Your task to perform on an android device: make emails show in primary in the gmail app Image 0: 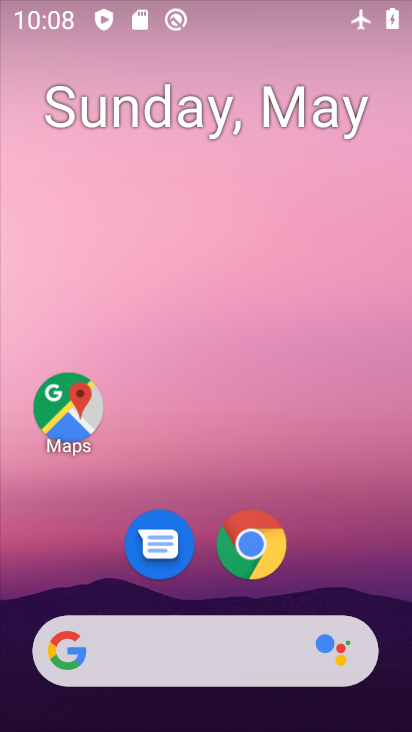
Step 0: drag from (315, 540) to (292, 267)
Your task to perform on an android device: make emails show in primary in the gmail app Image 1: 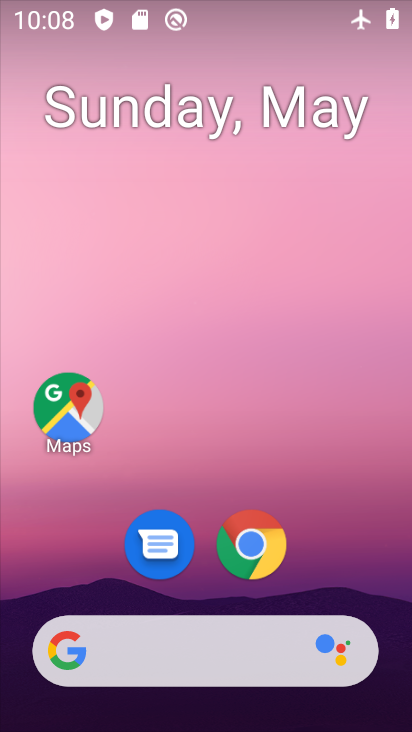
Step 1: click (277, 206)
Your task to perform on an android device: make emails show in primary in the gmail app Image 2: 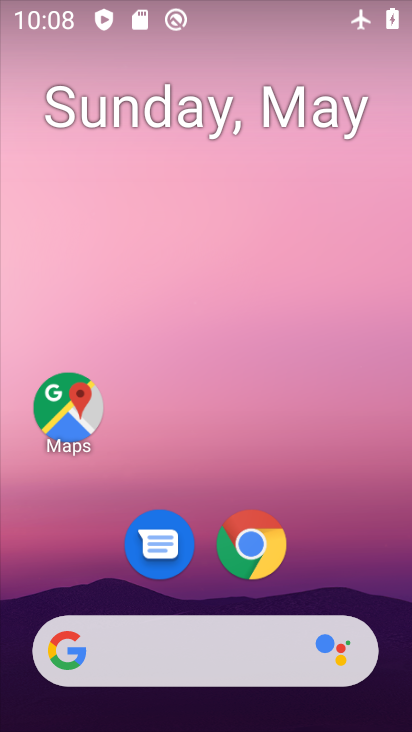
Step 2: drag from (268, 486) to (268, 263)
Your task to perform on an android device: make emails show in primary in the gmail app Image 3: 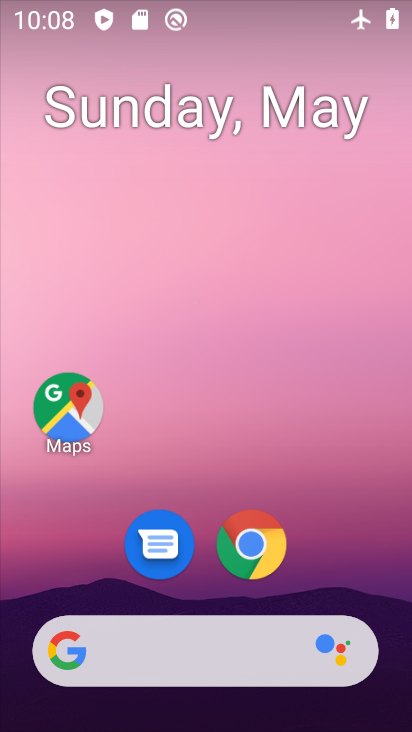
Step 3: drag from (188, 638) to (218, 228)
Your task to perform on an android device: make emails show in primary in the gmail app Image 4: 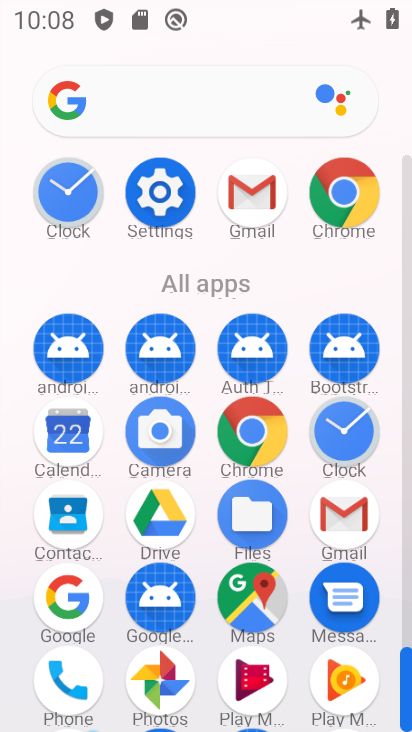
Step 4: click (259, 174)
Your task to perform on an android device: make emails show in primary in the gmail app Image 5: 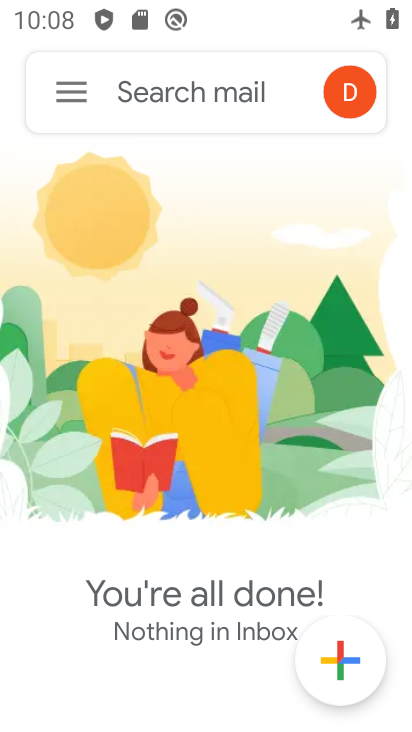
Step 5: click (66, 96)
Your task to perform on an android device: make emails show in primary in the gmail app Image 6: 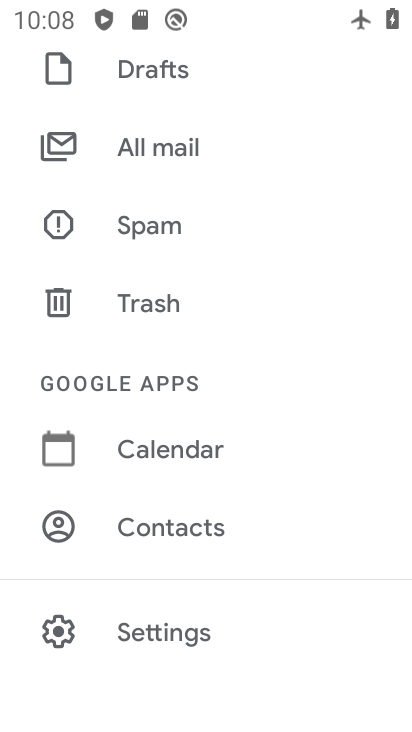
Step 6: click (137, 649)
Your task to perform on an android device: make emails show in primary in the gmail app Image 7: 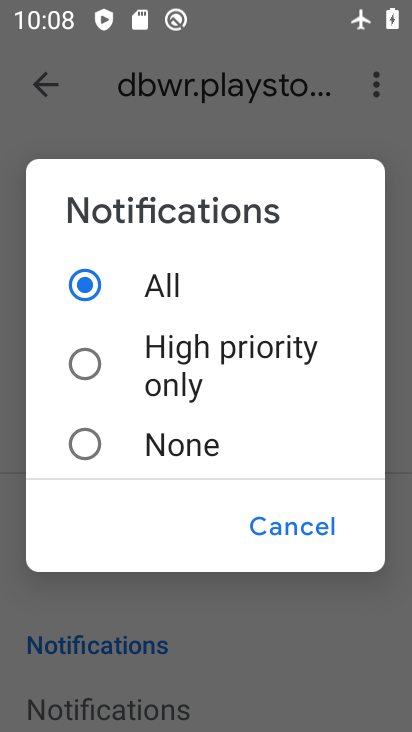
Step 7: click (350, 525)
Your task to perform on an android device: make emails show in primary in the gmail app Image 8: 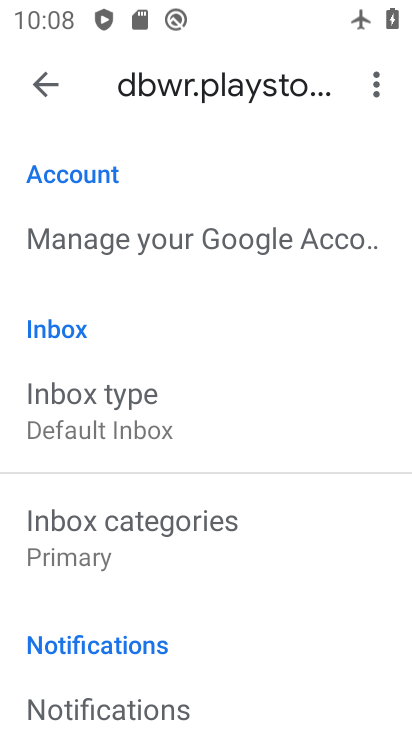
Step 8: task complete